Your task to perform on an android device: Open internet settings Image 0: 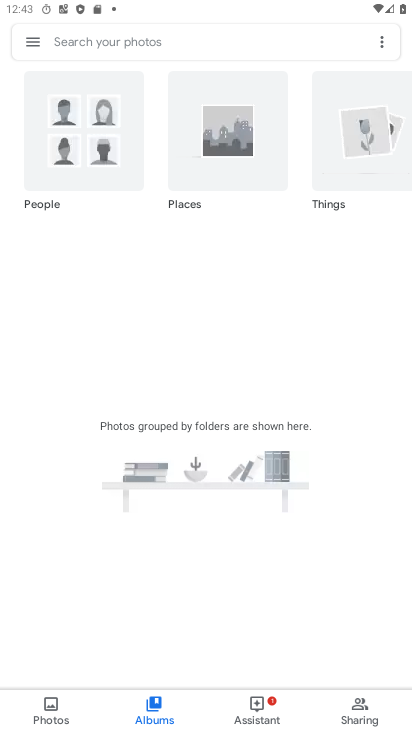
Step 0: press home button
Your task to perform on an android device: Open internet settings Image 1: 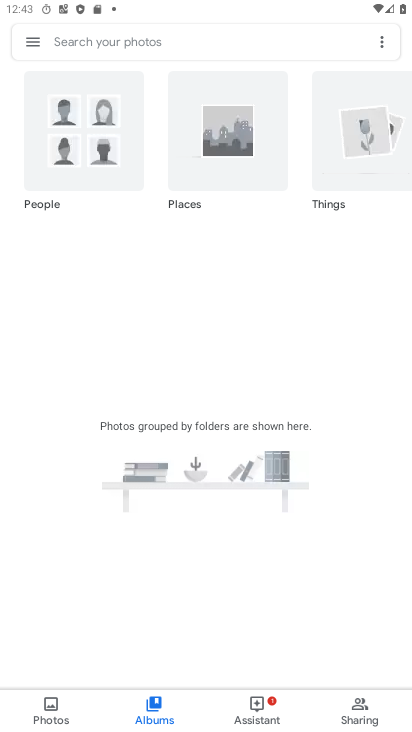
Step 1: drag from (219, 15) to (247, 142)
Your task to perform on an android device: Open internet settings Image 2: 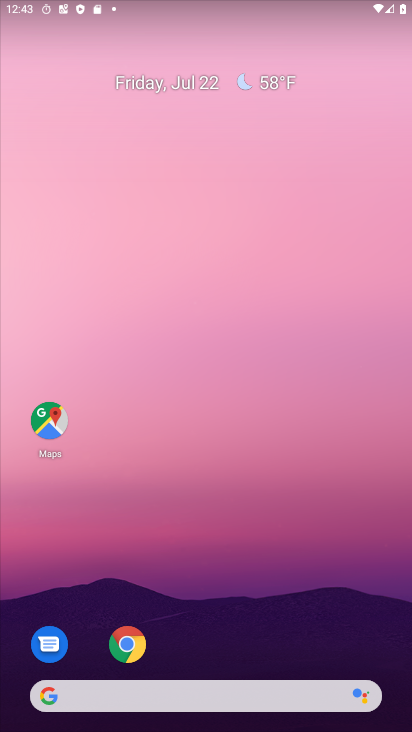
Step 2: drag from (213, 598) to (269, 142)
Your task to perform on an android device: Open internet settings Image 3: 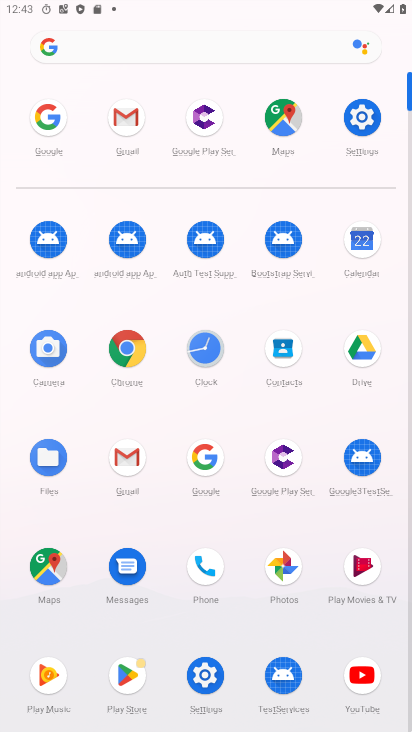
Step 3: click (362, 121)
Your task to perform on an android device: Open internet settings Image 4: 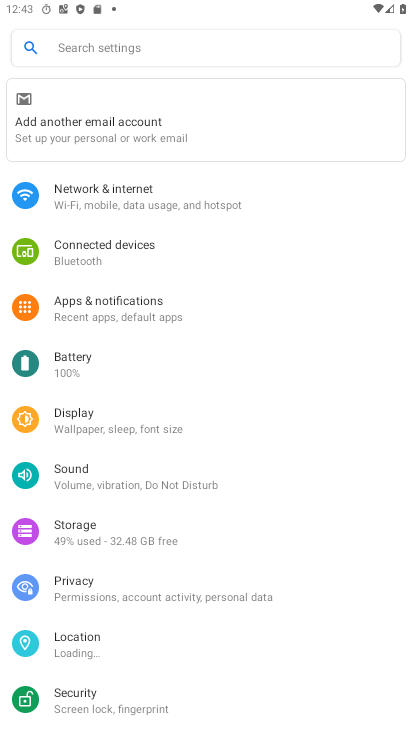
Step 4: click (92, 200)
Your task to perform on an android device: Open internet settings Image 5: 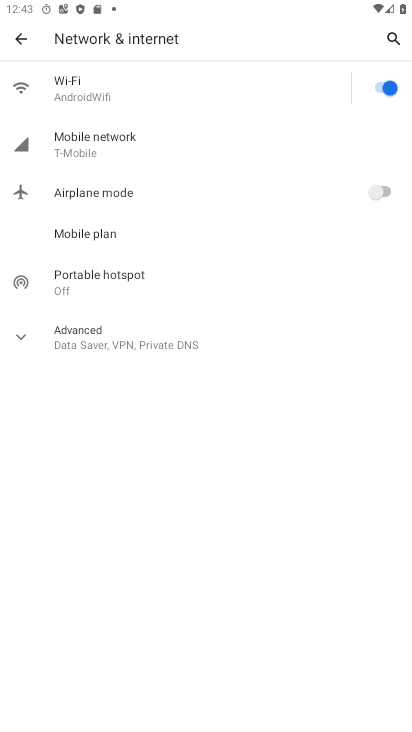
Step 5: task complete